Your task to perform on an android device: change keyboard looks Image 0: 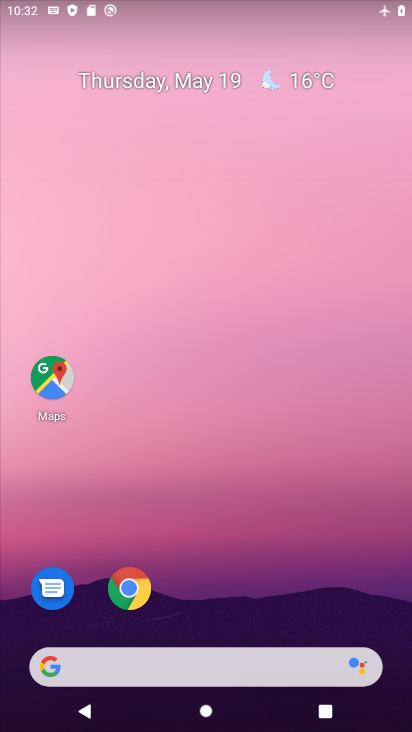
Step 0: drag from (241, 607) to (337, 110)
Your task to perform on an android device: change keyboard looks Image 1: 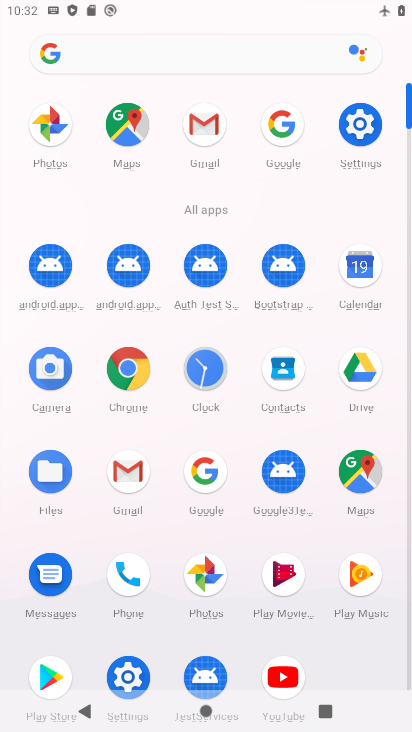
Step 1: click (373, 116)
Your task to perform on an android device: change keyboard looks Image 2: 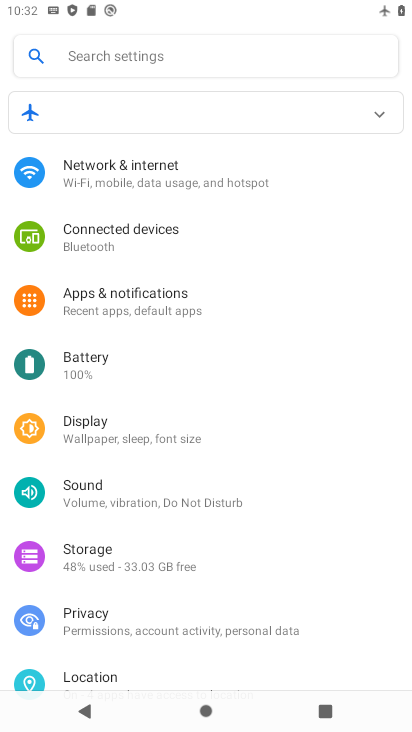
Step 2: drag from (149, 511) to (235, 163)
Your task to perform on an android device: change keyboard looks Image 3: 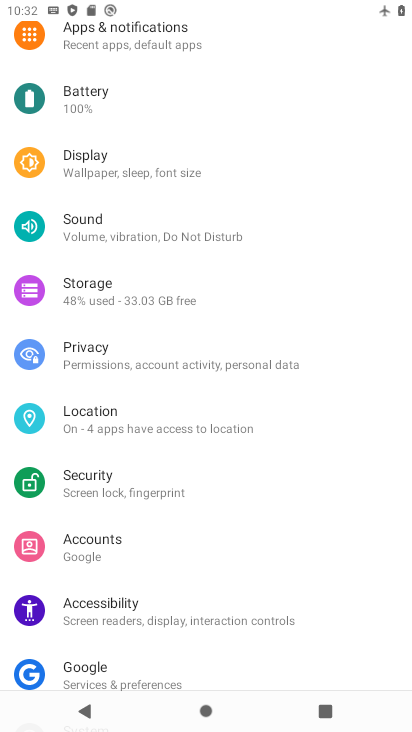
Step 3: drag from (146, 635) to (228, 285)
Your task to perform on an android device: change keyboard looks Image 4: 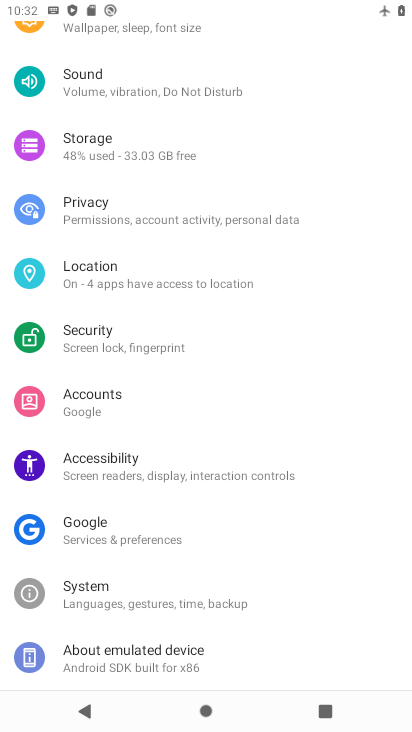
Step 4: click (124, 591)
Your task to perform on an android device: change keyboard looks Image 5: 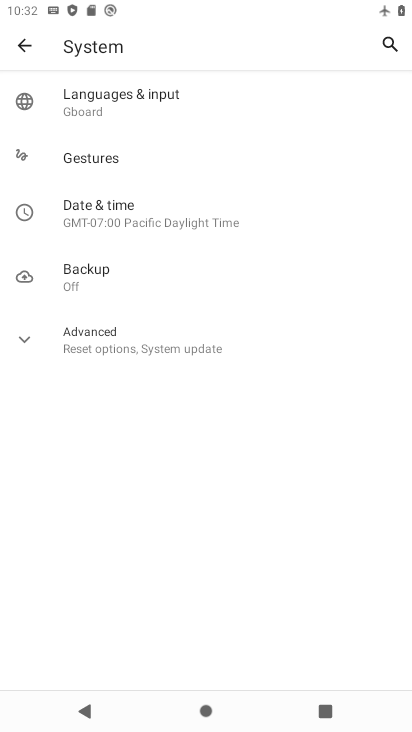
Step 5: click (202, 97)
Your task to perform on an android device: change keyboard looks Image 6: 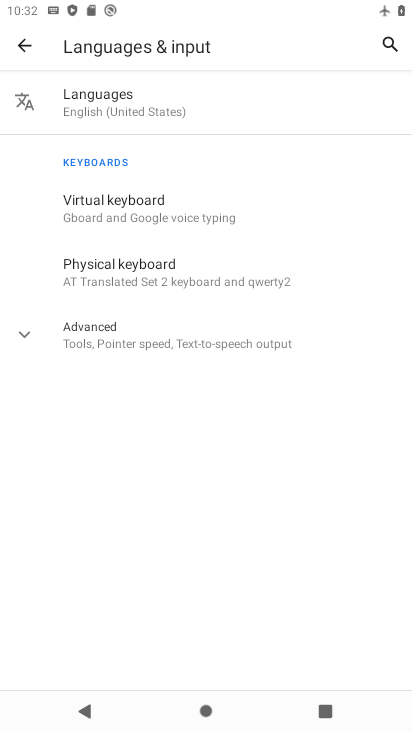
Step 6: click (138, 200)
Your task to perform on an android device: change keyboard looks Image 7: 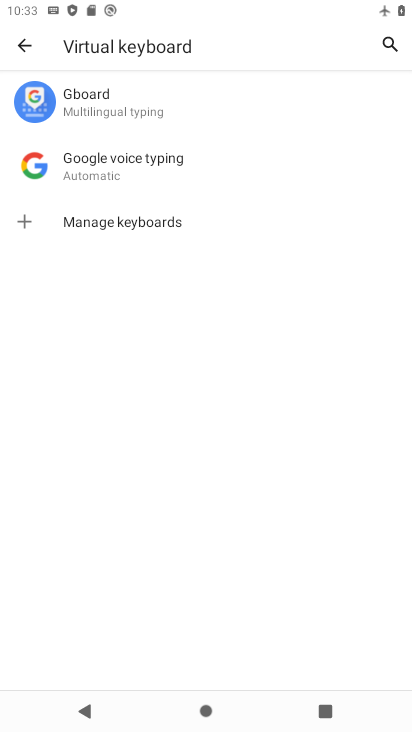
Step 7: click (162, 107)
Your task to perform on an android device: change keyboard looks Image 8: 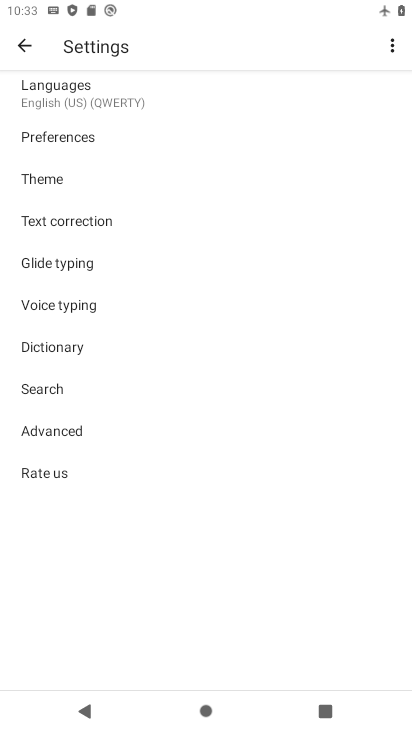
Step 8: click (66, 189)
Your task to perform on an android device: change keyboard looks Image 9: 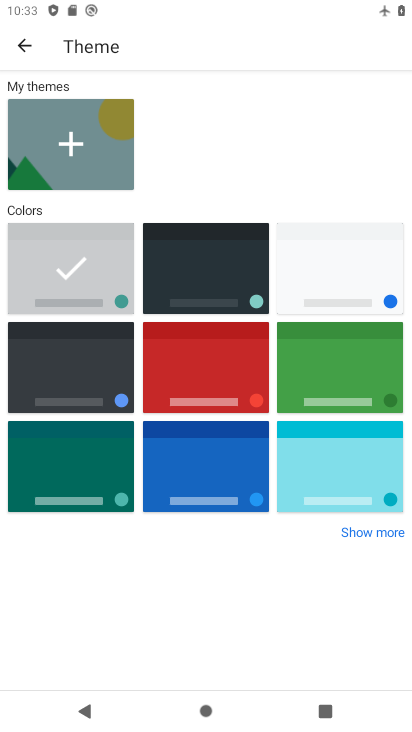
Step 9: click (246, 304)
Your task to perform on an android device: change keyboard looks Image 10: 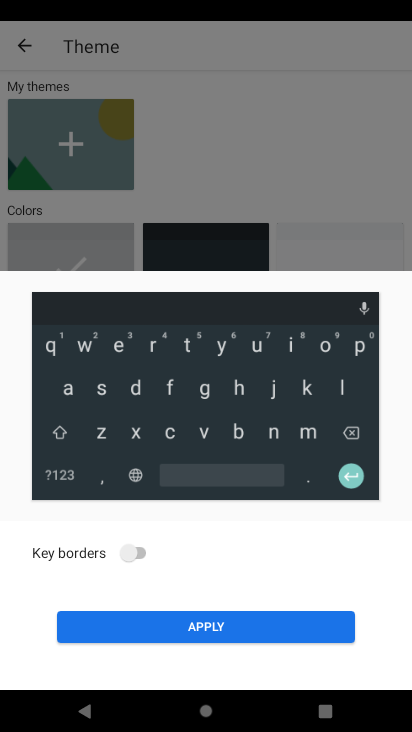
Step 10: click (135, 557)
Your task to perform on an android device: change keyboard looks Image 11: 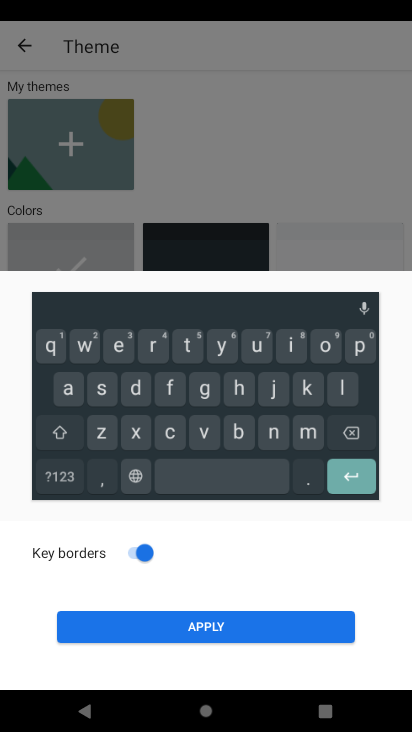
Step 11: click (240, 629)
Your task to perform on an android device: change keyboard looks Image 12: 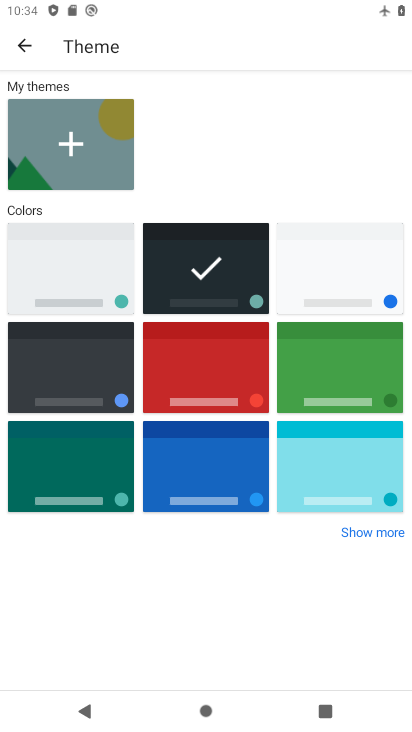
Step 12: task complete